Your task to perform on an android device: turn on javascript in the chrome app Image 0: 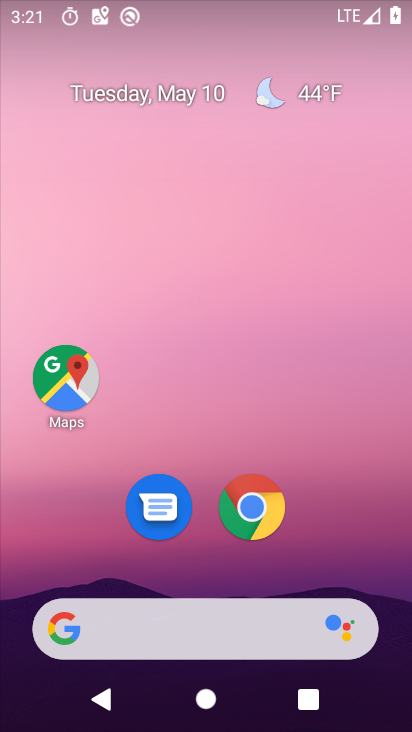
Step 0: click (276, 513)
Your task to perform on an android device: turn on javascript in the chrome app Image 1: 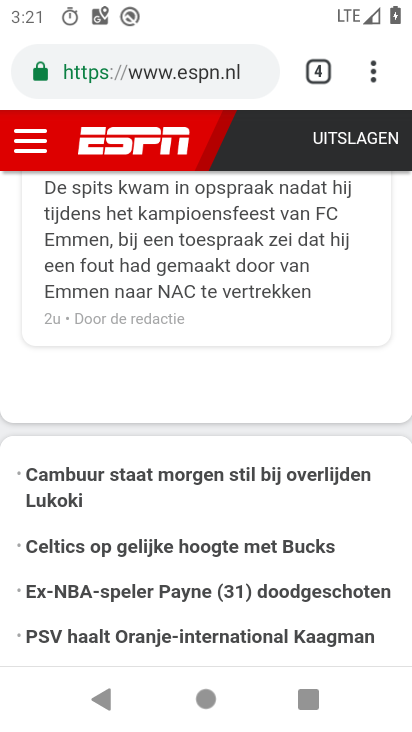
Step 1: click (377, 67)
Your task to perform on an android device: turn on javascript in the chrome app Image 2: 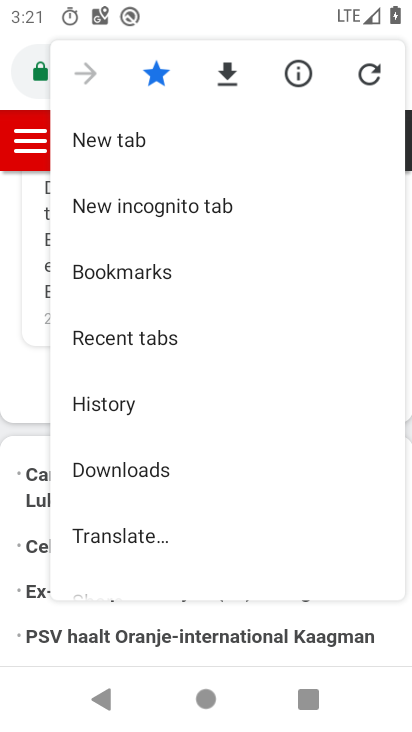
Step 2: drag from (178, 550) to (192, 205)
Your task to perform on an android device: turn on javascript in the chrome app Image 3: 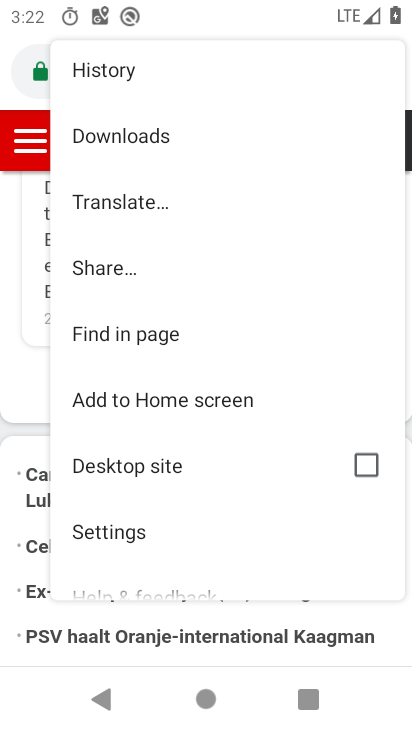
Step 3: click (132, 527)
Your task to perform on an android device: turn on javascript in the chrome app Image 4: 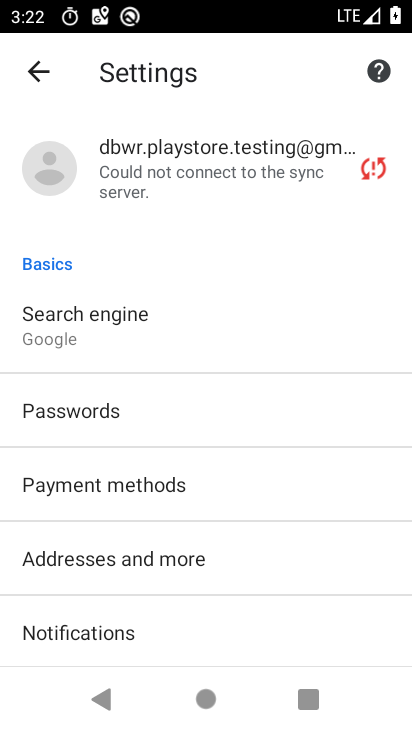
Step 4: drag from (155, 638) to (166, 320)
Your task to perform on an android device: turn on javascript in the chrome app Image 5: 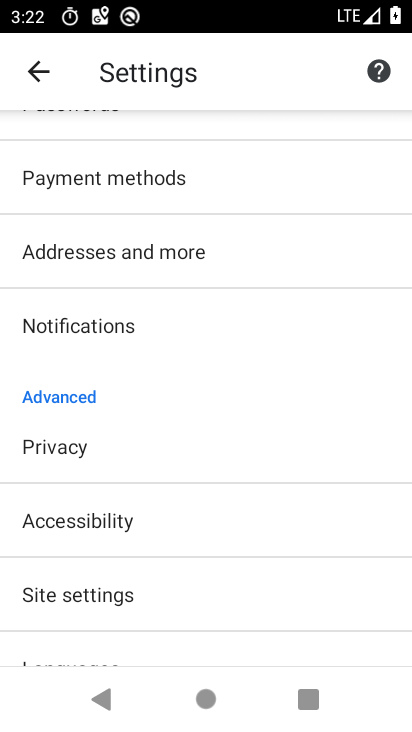
Step 5: click (81, 592)
Your task to perform on an android device: turn on javascript in the chrome app Image 6: 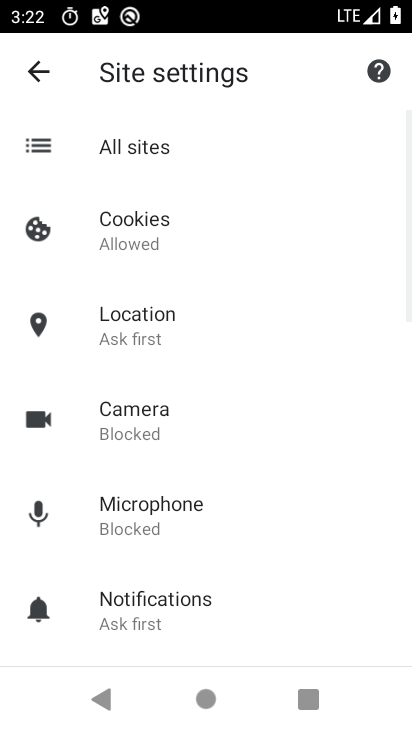
Step 6: drag from (136, 629) to (237, 299)
Your task to perform on an android device: turn on javascript in the chrome app Image 7: 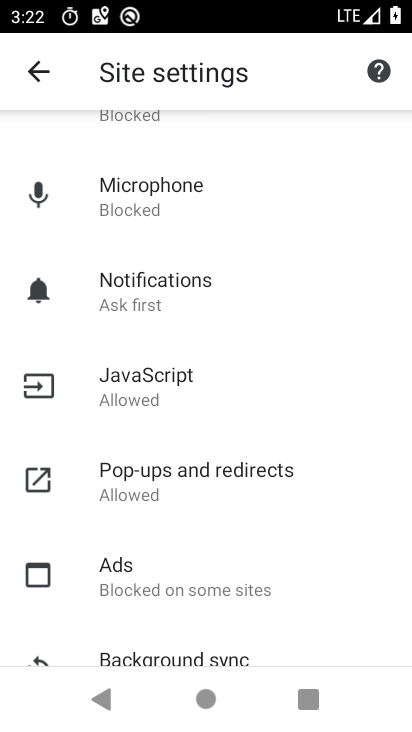
Step 7: click (156, 385)
Your task to perform on an android device: turn on javascript in the chrome app Image 8: 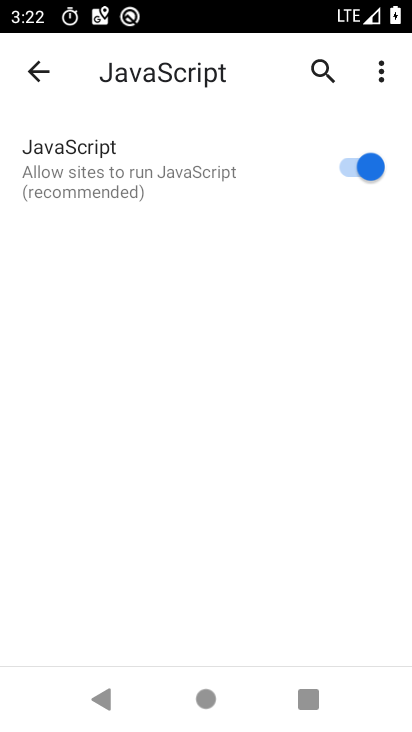
Step 8: task complete